Your task to perform on an android device: search for starred emails in the gmail app Image 0: 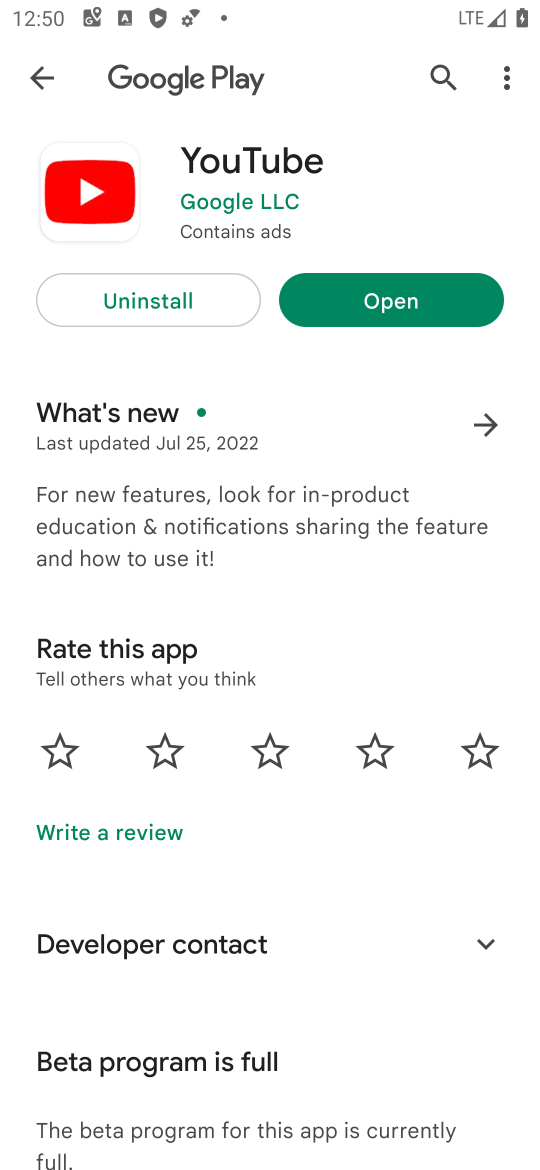
Step 0: press home button
Your task to perform on an android device: search for starred emails in the gmail app Image 1: 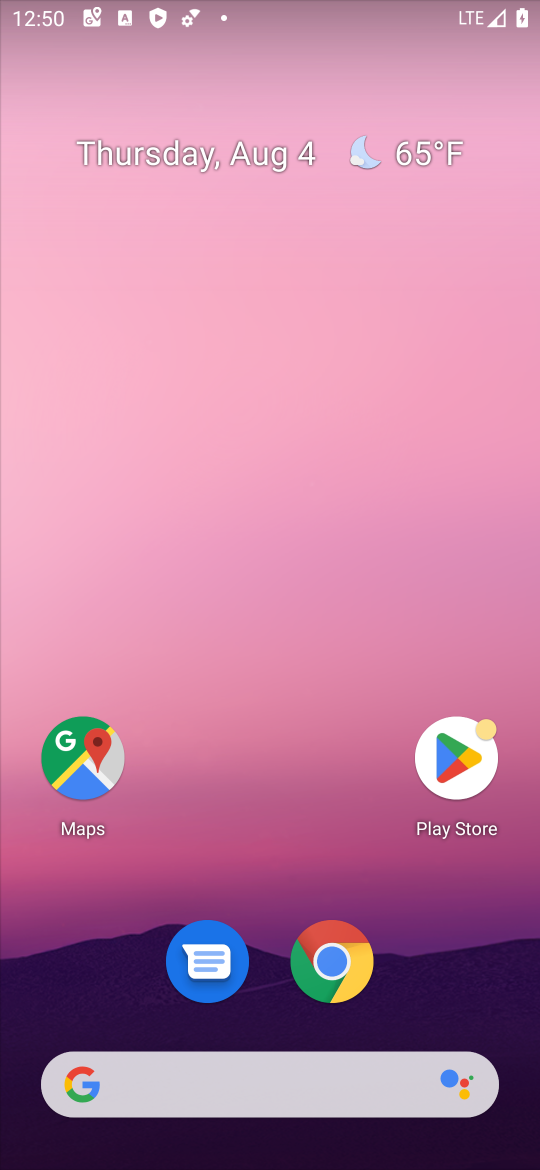
Step 1: drag from (238, 776) to (281, 1)
Your task to perform on an android device: search for starred emails in the gmail app Image 2: 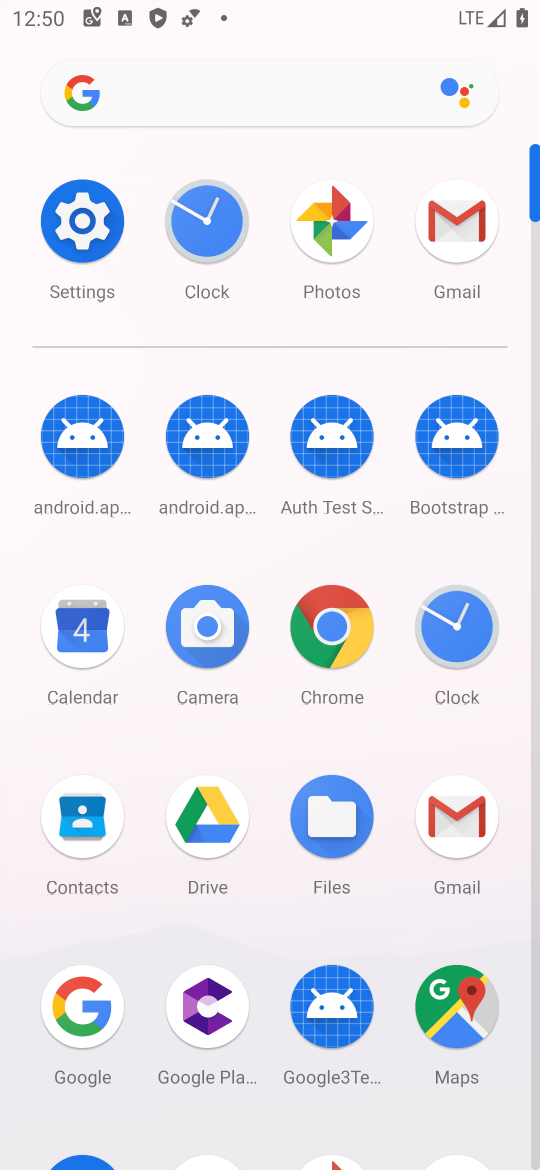
Step 2: click (459, 231)
Your task to perform on an android device: search for starred emails in the gmail app Image 3: 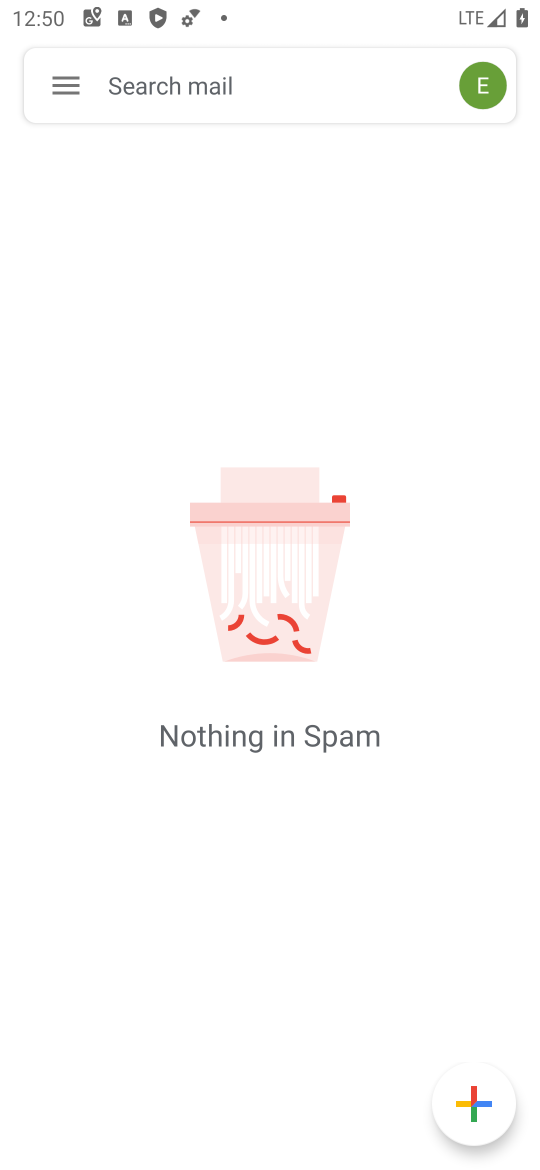
Step 3: click (70, 87)
Your task to perform on an android device: search for starred emails in the gmail app Image 4: 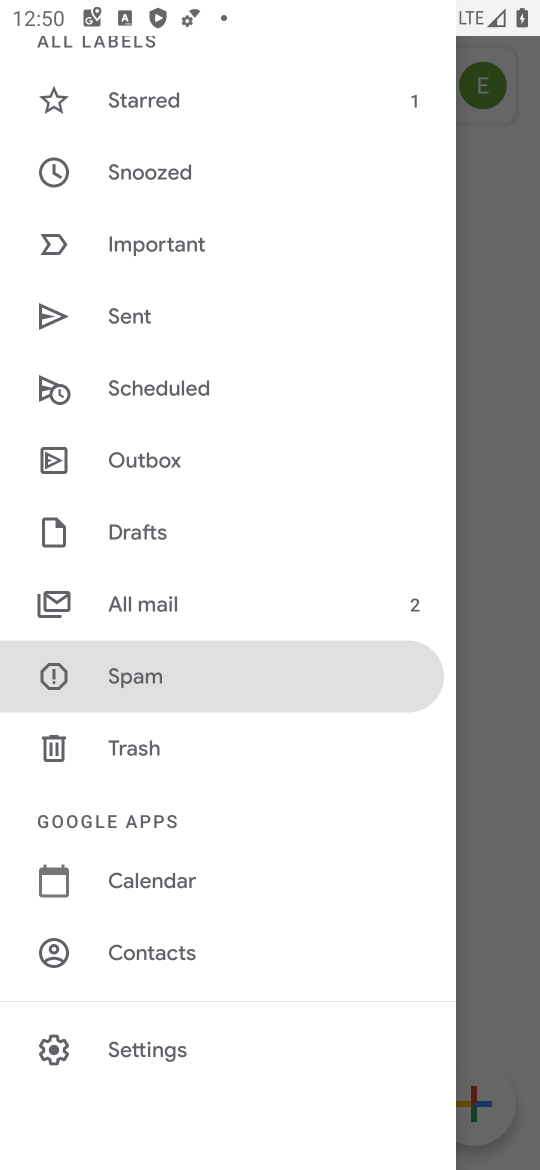
Step 4: click (136, 109)
Your task to perform on an android device: search for starred emails in the gmail app Image 5: 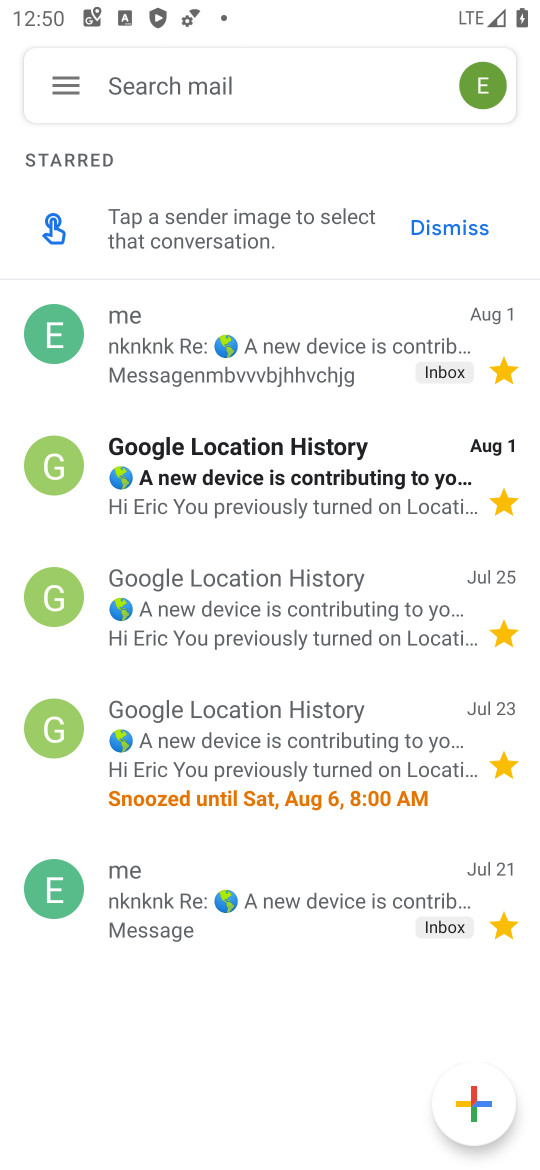
Step 5: task complete